Your task to perform on an android device: turn off location history Image 0: 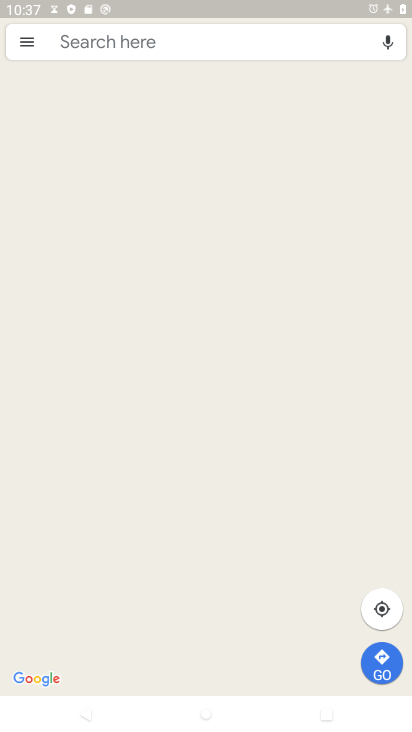
Step 0: press home button
Your task to perform on an android device: turn off location history Image 1: 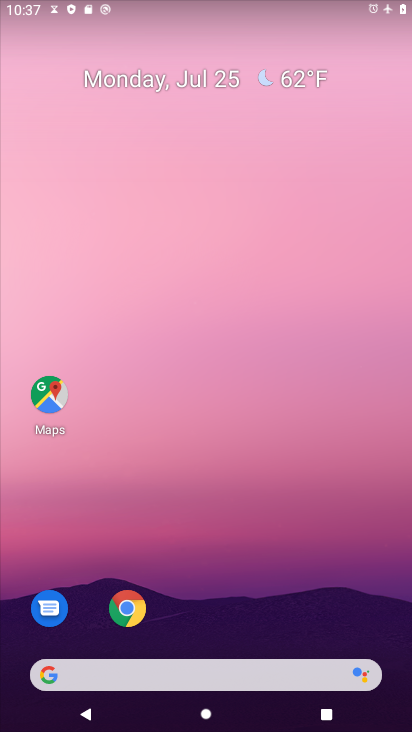
Step 1: drag from (166, 676) to (227, 153)
Your task to perform on an android device: turn off location history Image 2: 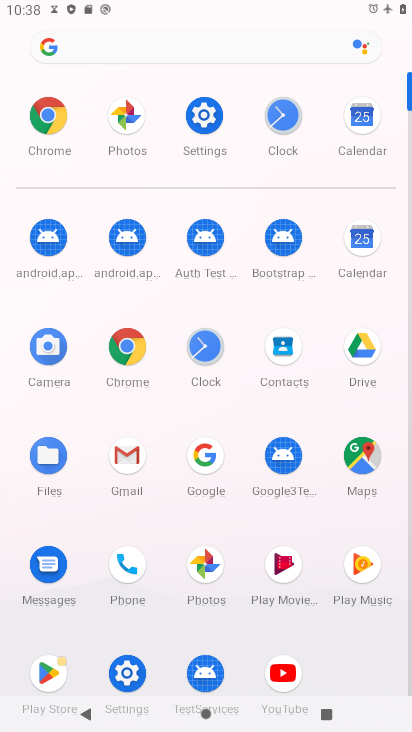
Step 2: click (203, 114)
Your task to perform on an android device: turn off location history Image 3: 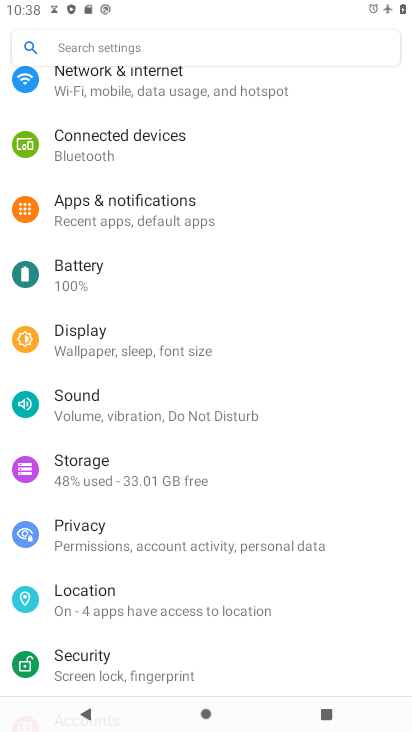
Step 3: click (97, 604)
Your task to perform on an android device: turn off location history Image 4: 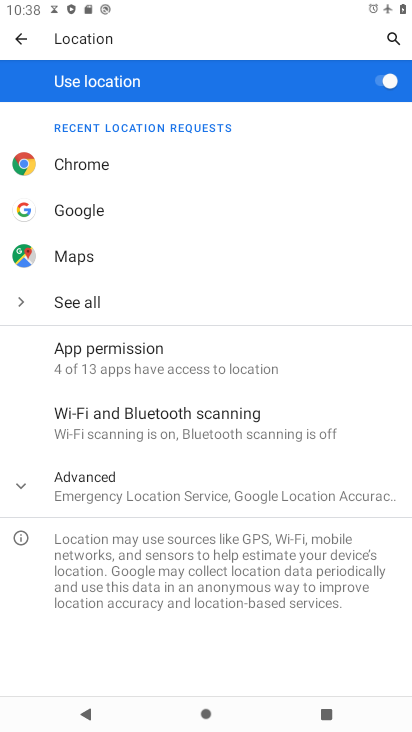
Step 4: click (208, 496)
Your task to perform on an android device: turn off location history Image 5: 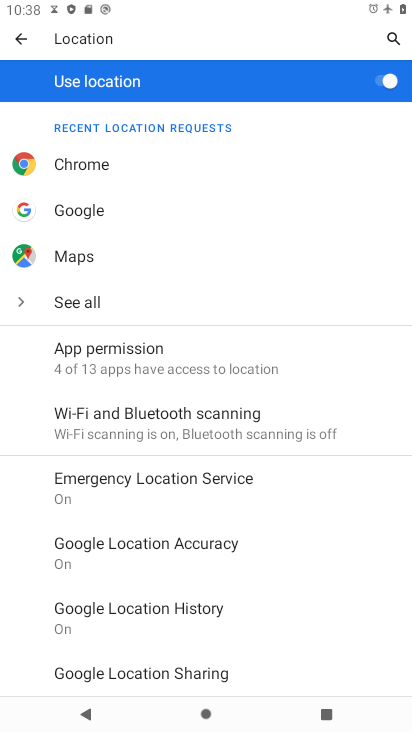
Step 5: drag from (178, 564) to (220, 489)
Your task to perform on an android device: turn off location history Image 6: 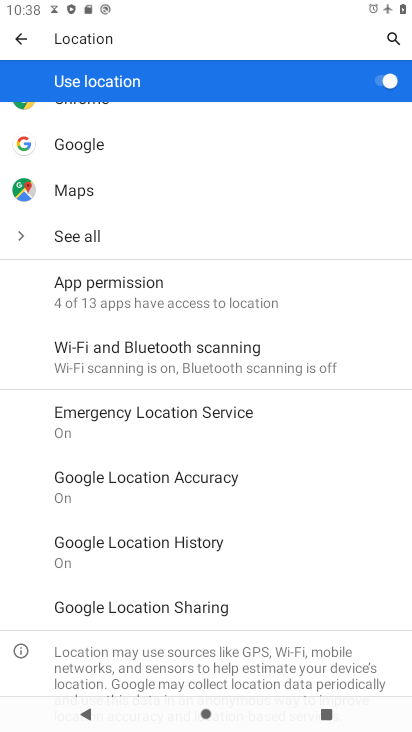
Step 6: click (219, 537)
Your task to perform on an android device: turn off location history Image 7: 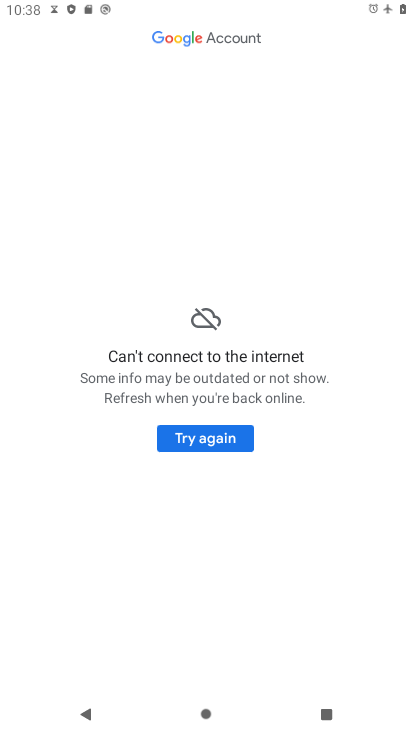
Step 7: click (181, 439)
Your task to perform on an android device: turn off location history Image 8: 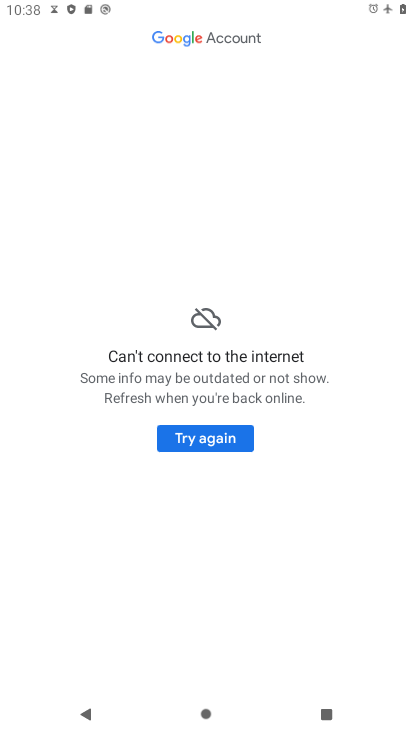
Step 8: click (200, 441)
Your task to perform on an android device: turn off location history Image 9: 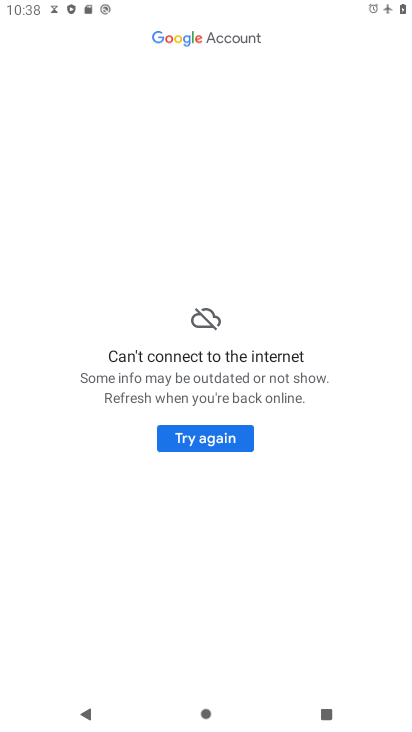
Step 9: task complete